Your task to perform on an android device: Search for pizza restaurants on Maps Image 0: 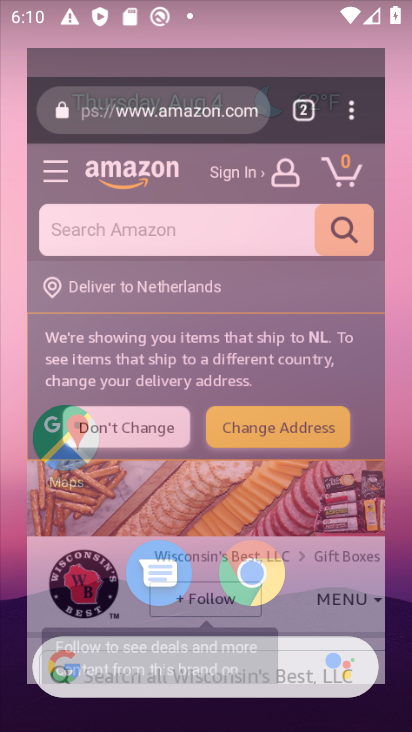
Step 0: drag from (225, 547) to (219, 166)
Your task to perform on an android device: Search for pizza restaurants on Maps Image 1: 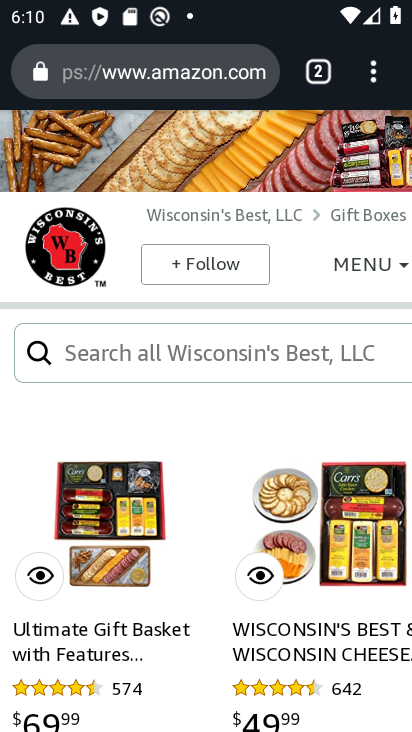
Step 1: press home button
Your task to perform on an android device: Search for pizza restaurants on Maps Image 2: 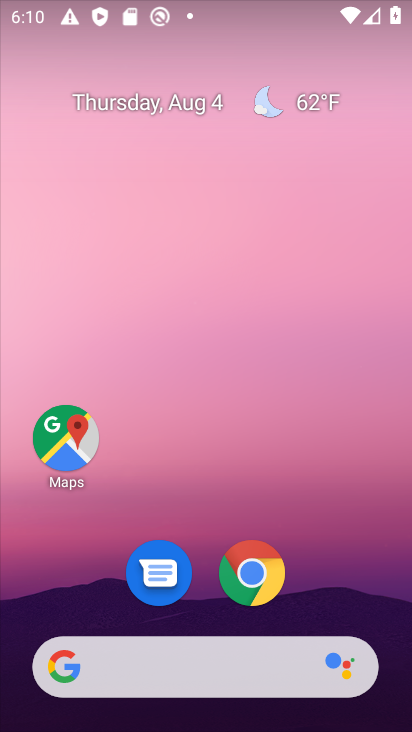
Step 2: click (60, 432)
Your task to perform on an android device: Search for pizza restaurants on Maps Image 3: 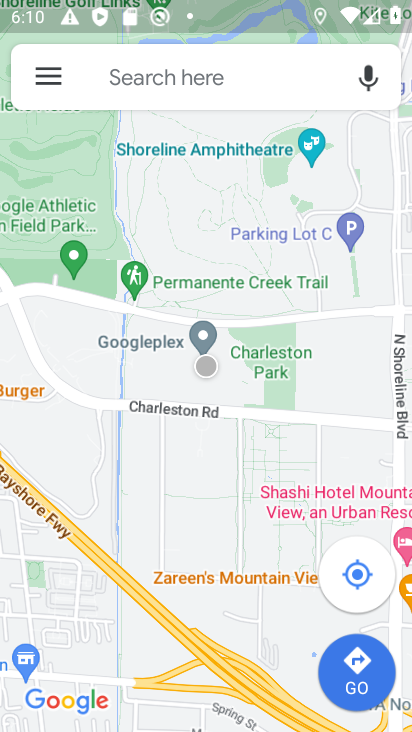
Step 3: click (187, 84)
Your task to perform on an android device: Search for pizza restaurants on Maps Image 4: 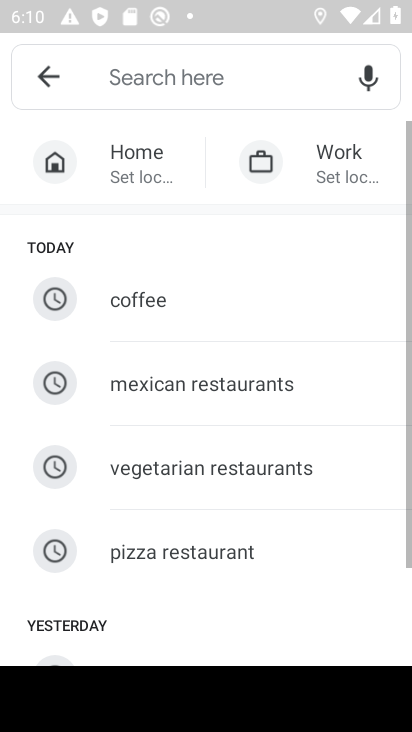
Step 4: click (182, 554)
Your task to perform on an android device: Search for pizza restaurants on Maps Image 5: 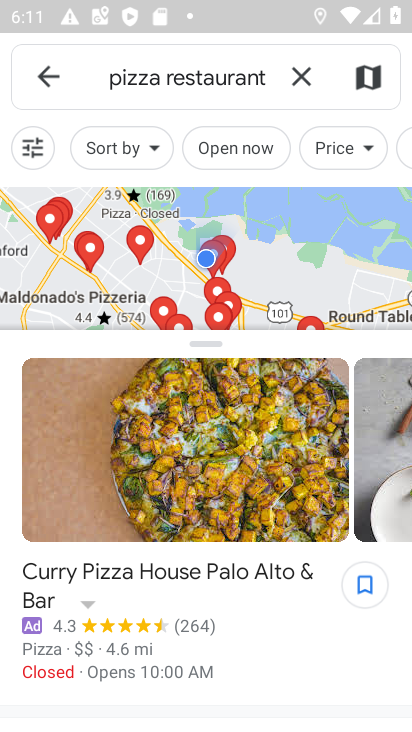
Step 5: task complete